Your task to perform on an android device: toggle notifications settings in the gmail app Image 0: 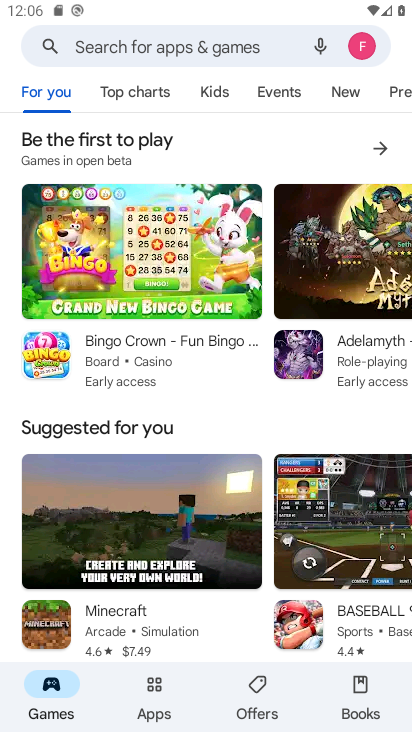
Step 0: press home button
Your task to perform on an android device: toggle notifications settings in the gmail app Image 1: 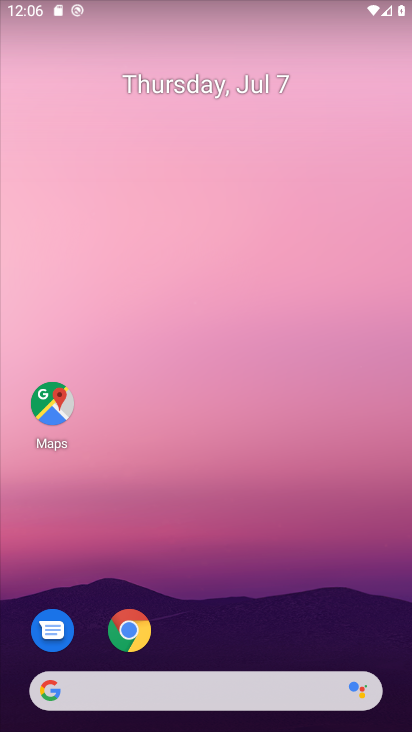
Step 1: drag from (250, 639) to (285, 155)
Your task to perform on an android device: toggle notifications settings in the gmail app Image 2: 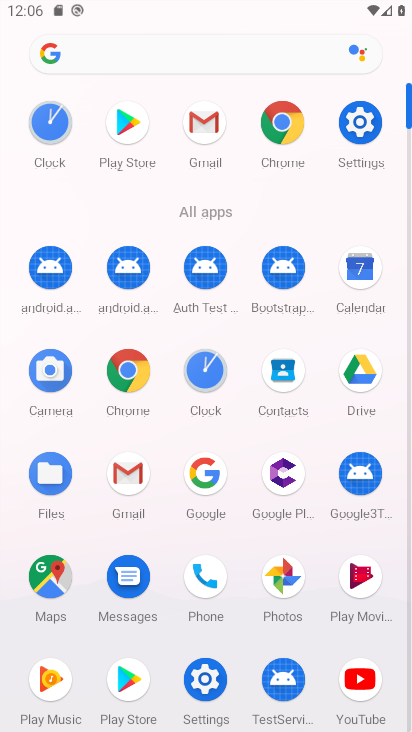
Step 2: click (198, 115)
Your task to perform on an android device: toggle notifications settings in the gmail app Image 3: 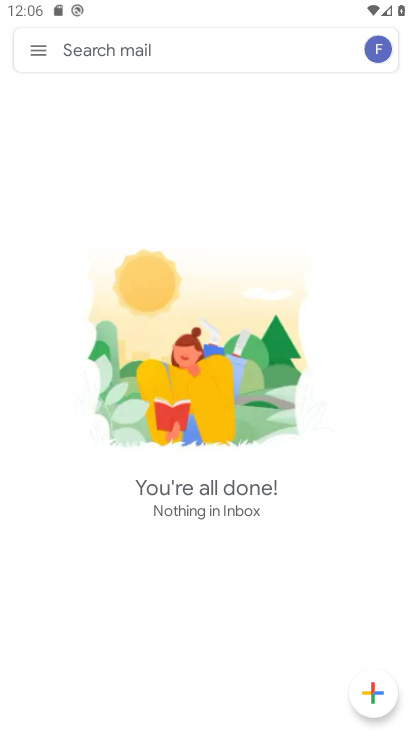
Step 3: click (29, 44)
Your task to perform on an android device: toggle notifications settings in the gmail app Image 4: 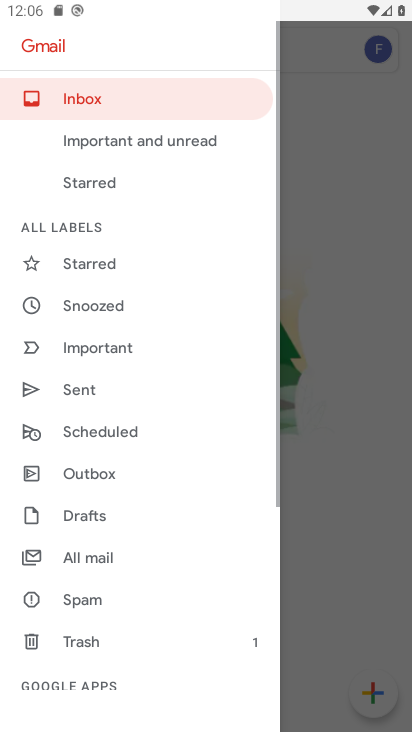
Step 4: drag from (116, 598) to (140, 238)
Your task to perform on an android device: toggle notifications settings in the gmail app Image 5: 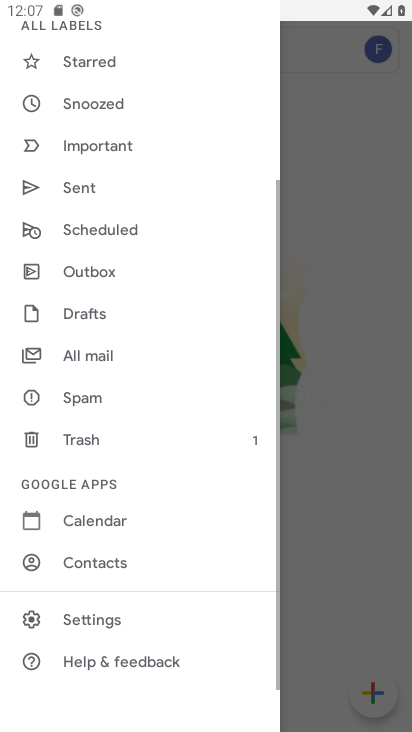
Step 5: click (132, 606)
Your task to perform on an android device: toggle notifications settings in the gmail app Image 6: 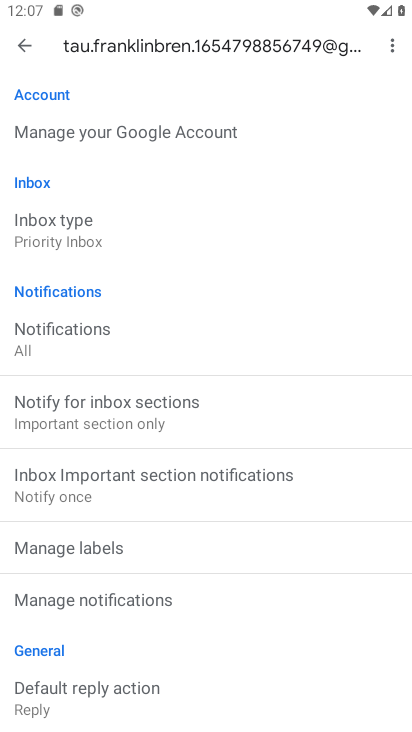
Step 6: click (95, 324)
Your task to perform on an android device: toggle notifications settings in the gmail app Image 7: 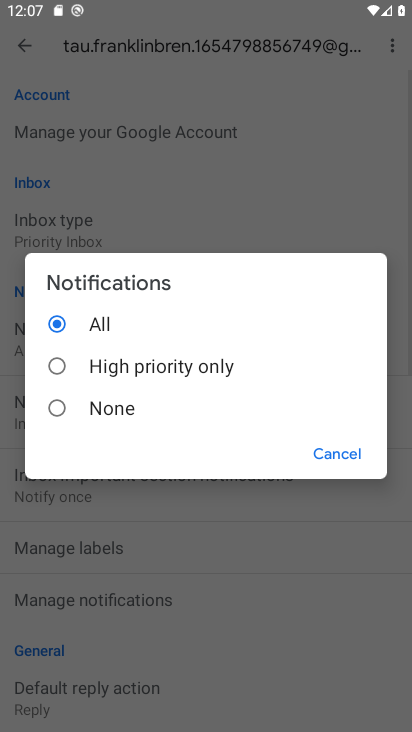
Step 7: click (114, 404)
Your task to perform on an android device: toggle notifications settings in the gmail app Image 8: 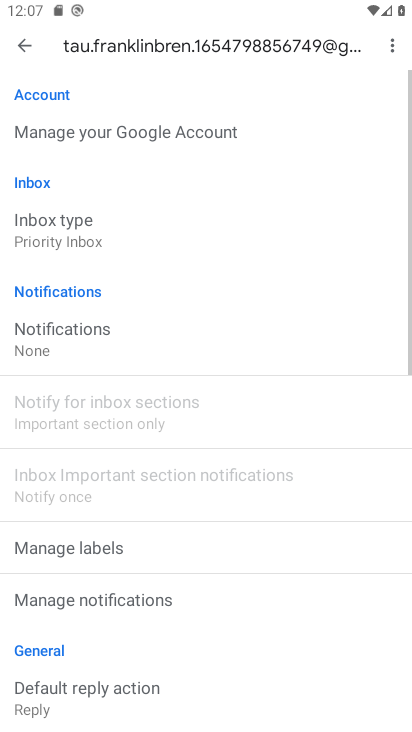
Step 8: task complete